Your task to perform on an android device: Search for Mexican restaurants on Maps Image 0: 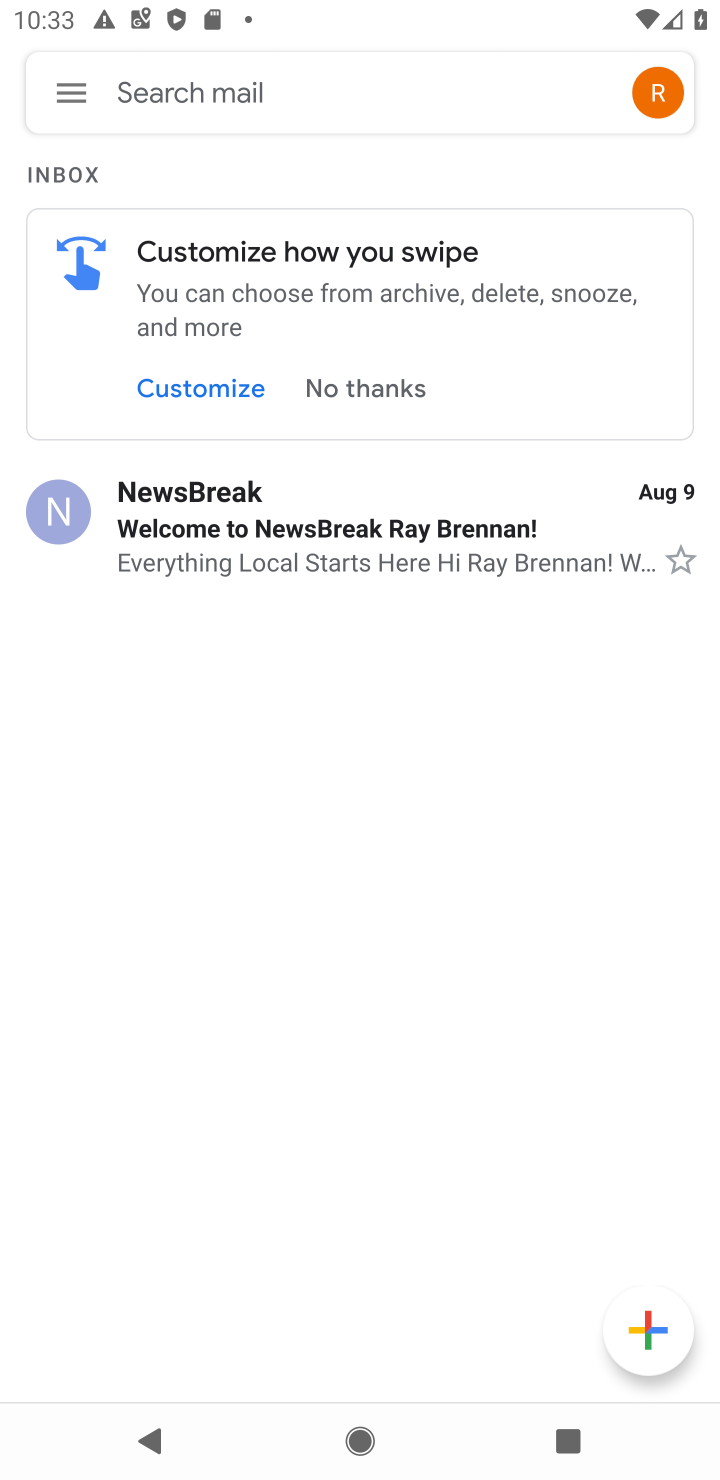
Step 0: press home button
Your task to perform on an android device: Search for Mexican restaurants on Maps Image 1: 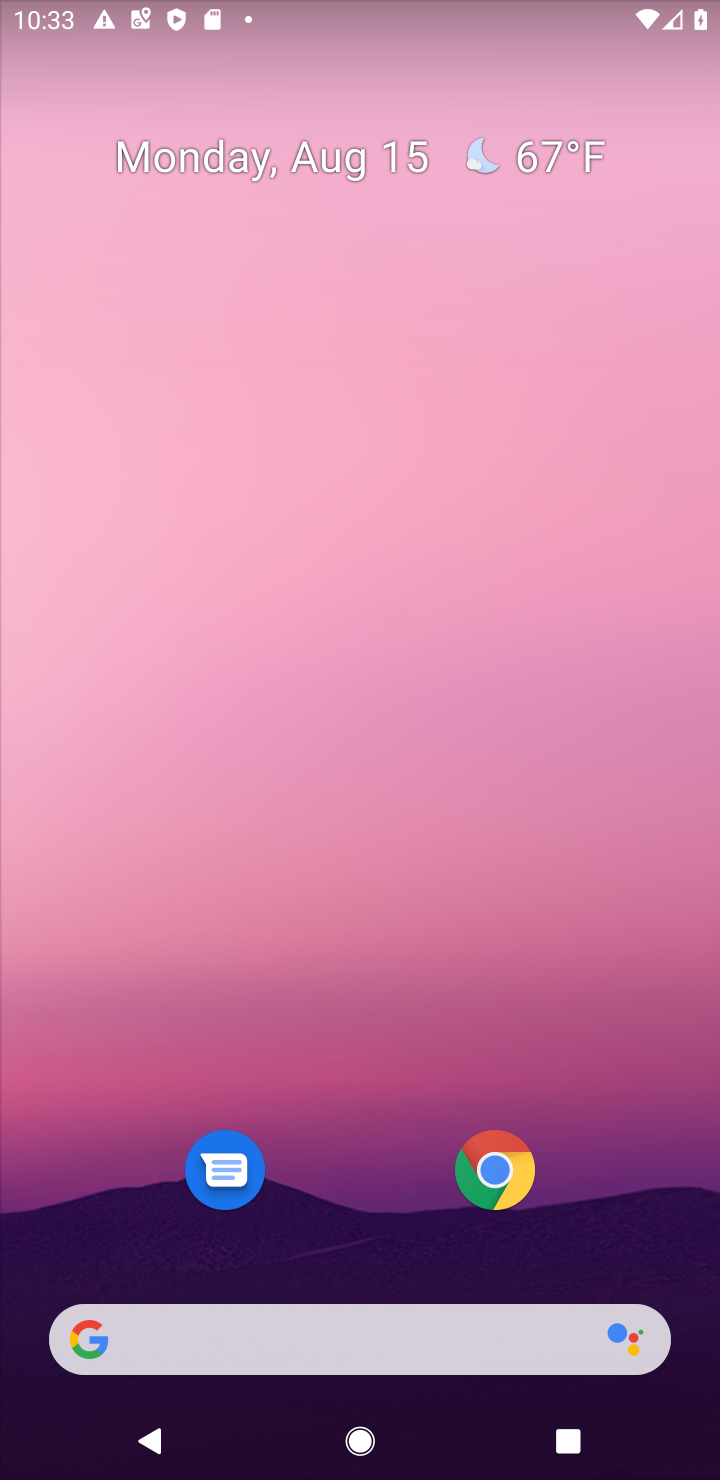
Step 1: drag from (435, 744) to (483, 74)
Your task to perform on an android device: Search for Mexican restaurants on Maps Image 2: 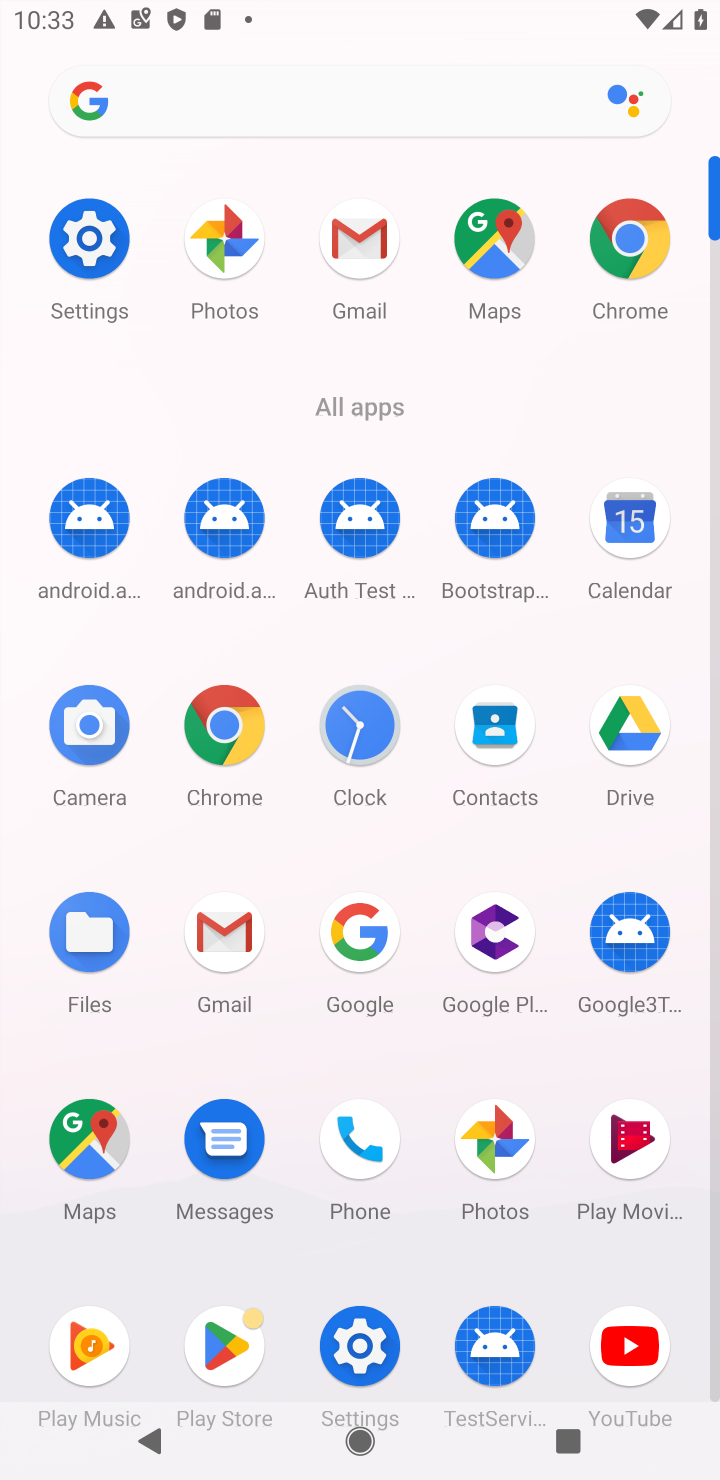
Step 2: click (90, 1116)
Your task to perform on an android device: Search for Mexican restaurants on Maps Image 3: 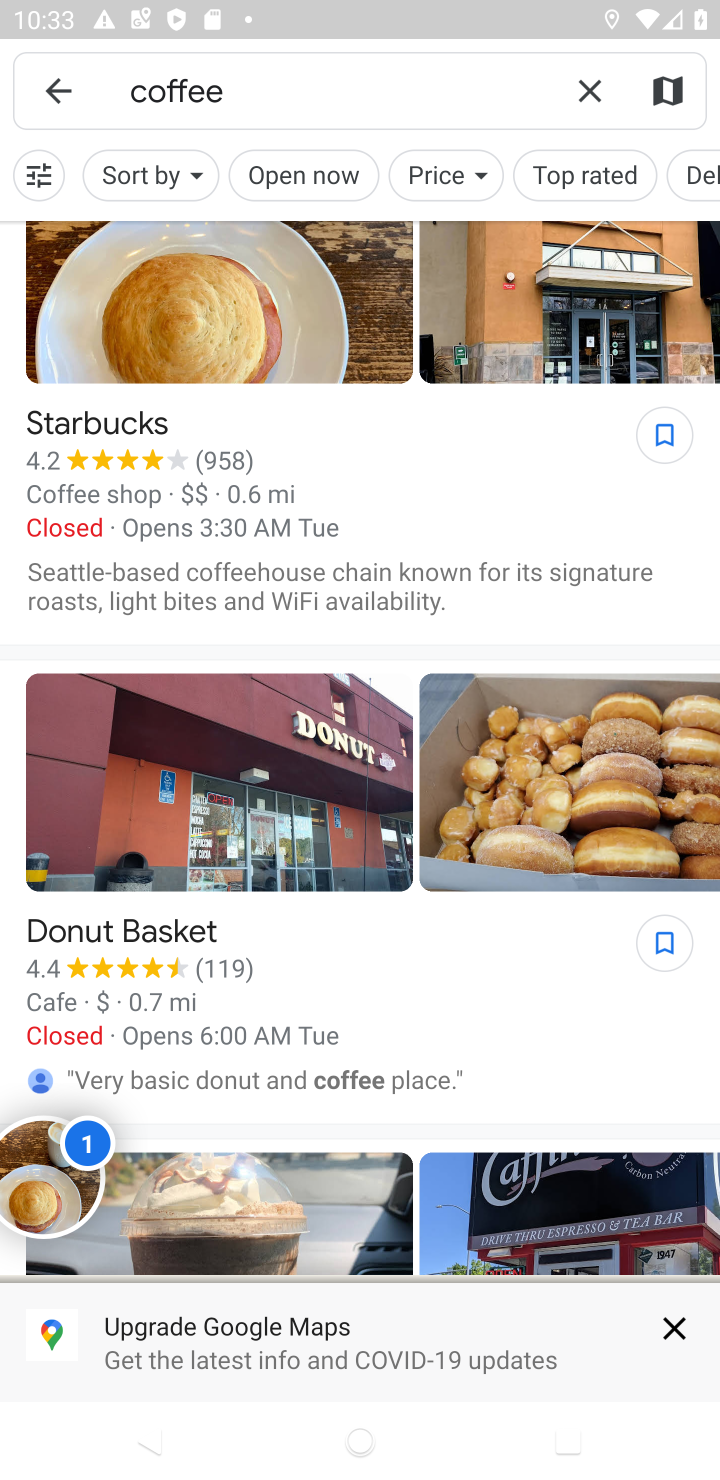
Step 3: click (582, 86)
Your task to perform on an android device: Search for Mexican restaurants on Maps Image 4: 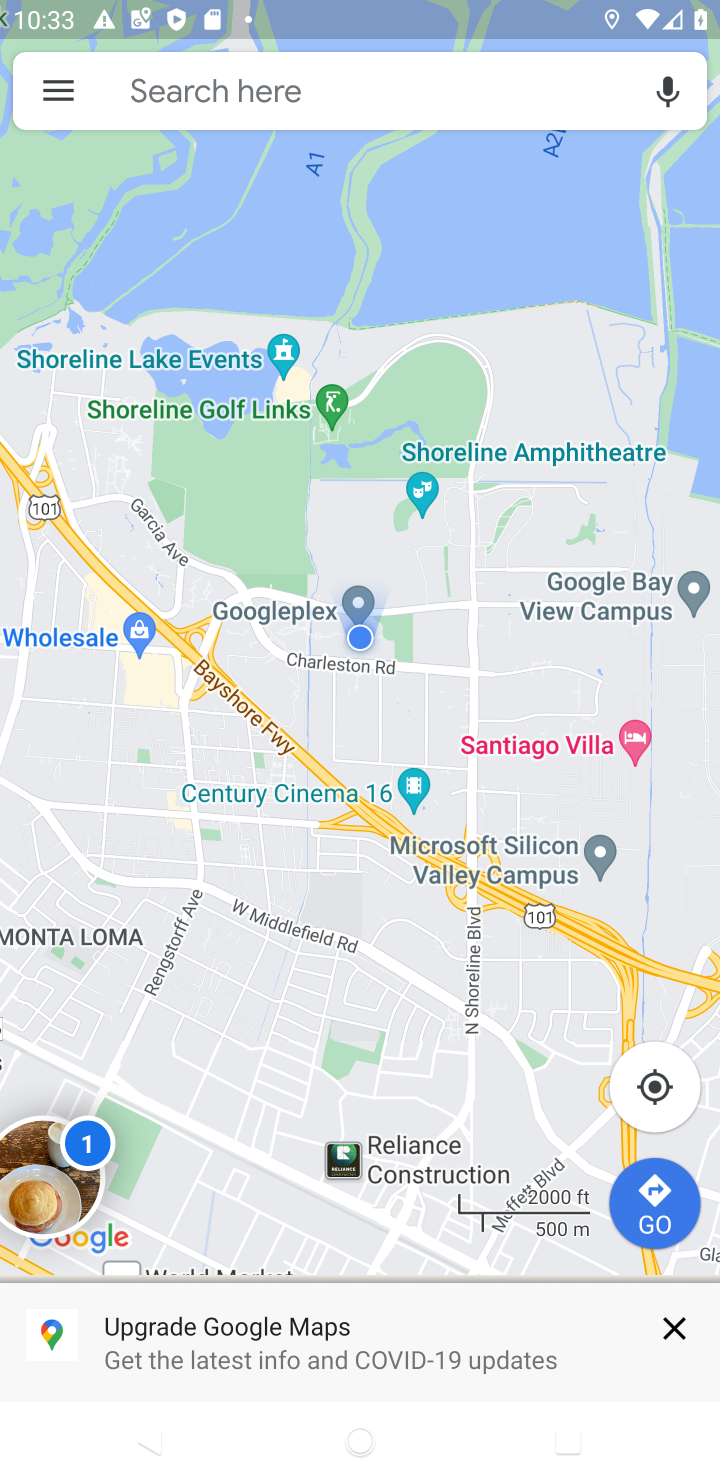
Step 4: click (224, 85)
Your task to perform on an android device: Search for Mexican restaurants on Maps Image 5: 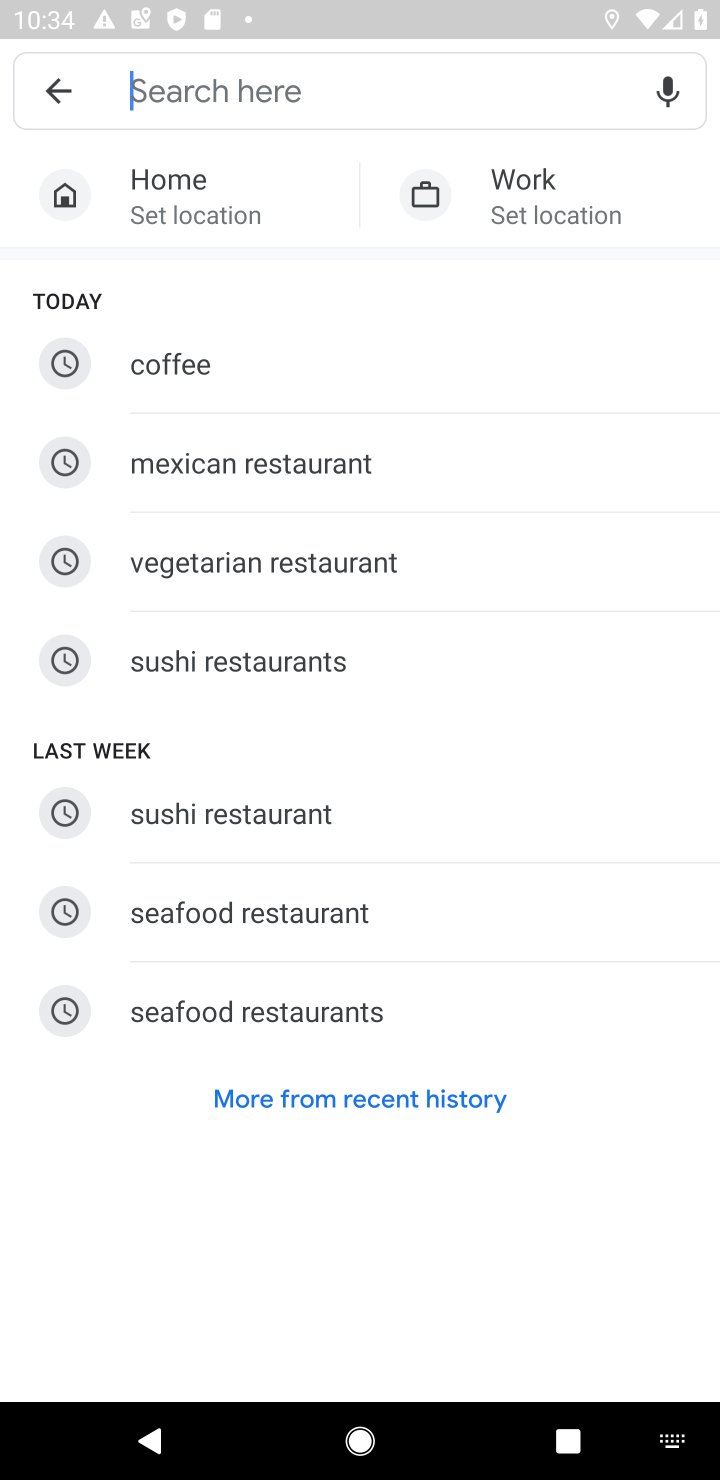
Step 5: click (250, 463)
Your task to perform on an android device: Search for Mexican restaurants on Maps Image 6: 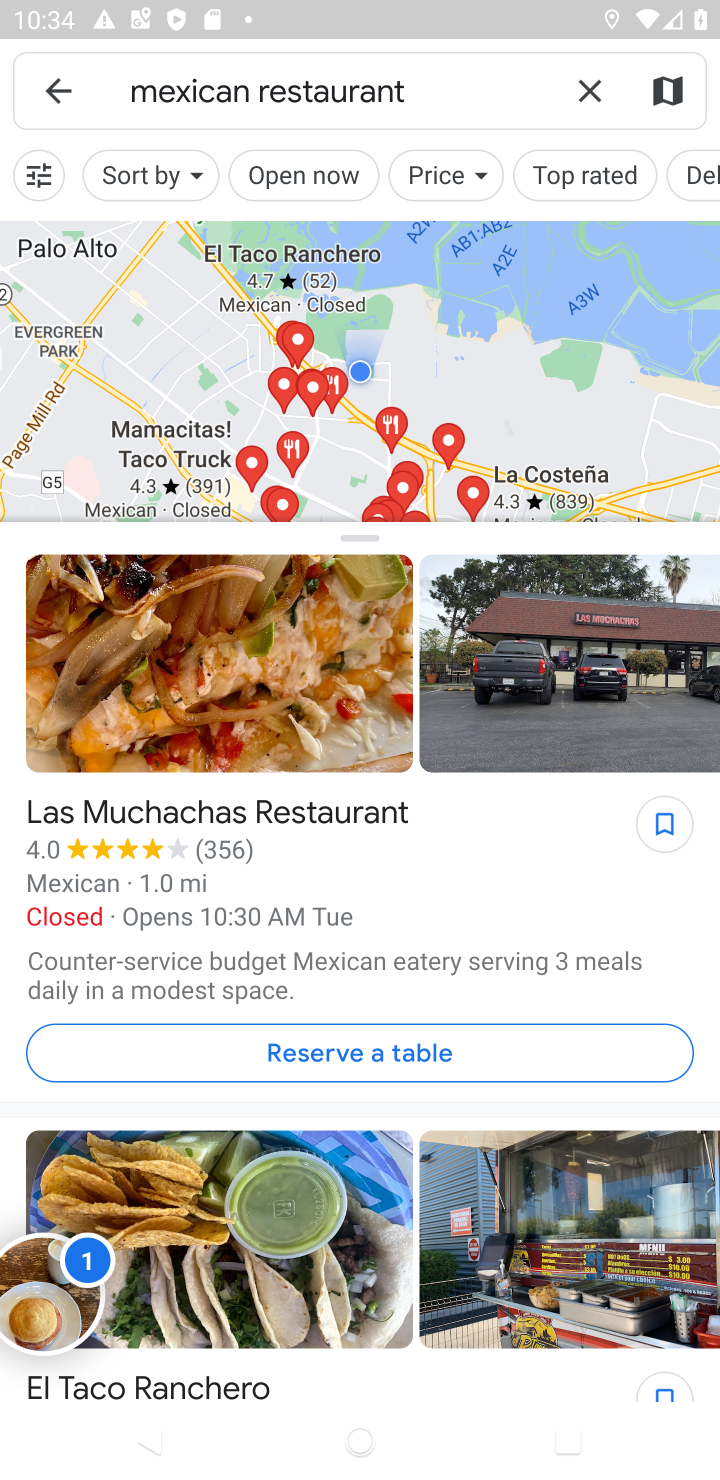
Step 6: task complete